Your task to perform on an android device: open app "LiveIn - Share Your Moment" (install if not already installed) and go to login screen Image 0: 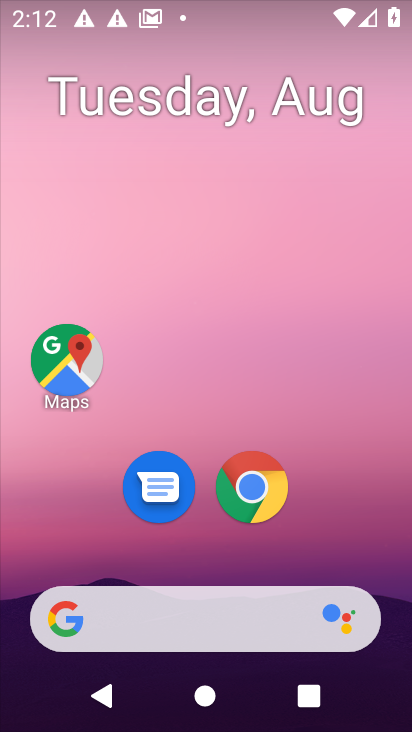
Step 0: drag from (183, 624) to (279, 6)
Your task to perform on an android device: open app "LiveIn - Share Your Moment" (install if not already installed) and go to login screen Image 1: 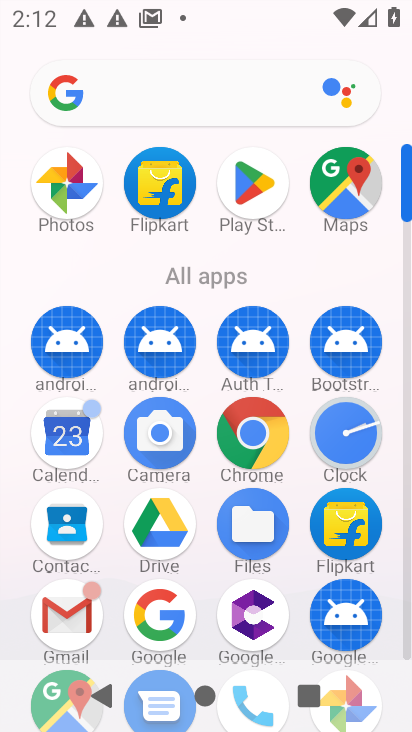
Step 1: click (250, 190)
Your task to perform on an android device: open app "LiveIn - Share Your Moment" (install if not already installed) and go to login screen Image 2: 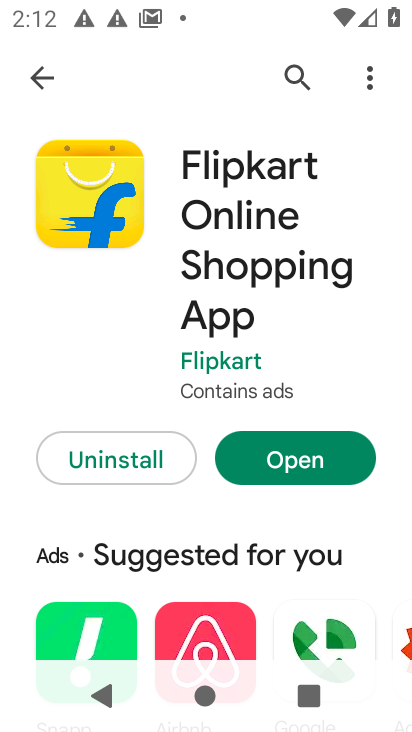
Step 2: press back button
Your task to perform on an android device: open app "LiveIn - Share Your Moment" (install if not already installed) and go to login screen Image 3: 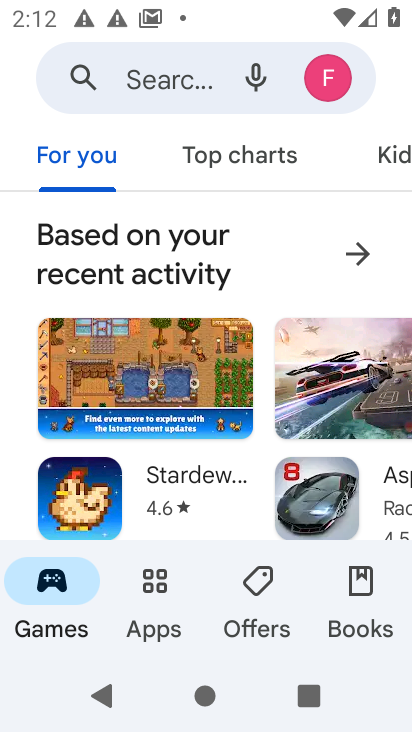
Step 3: click (186, 75)
Your task to perform on an android device: open app "LiveIn - Share Your Moment" (install if not already installed) and go to login screen Image 4: 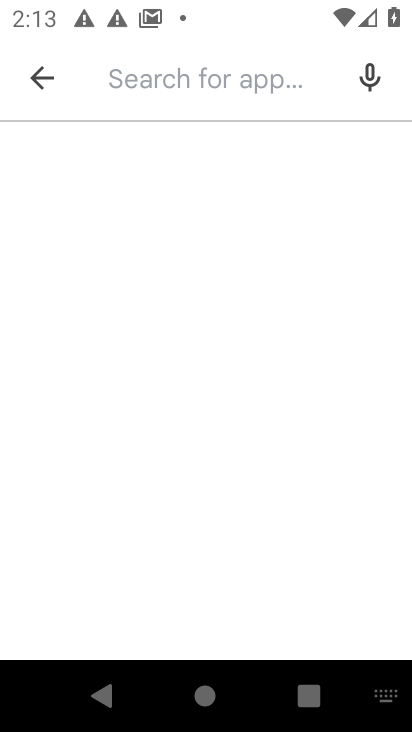
Step 4: type "LiveIn - Share Your Moment"
Your task to perform on an android device: open app "LiveIn - Share Your Moment" (install if not already installed) and go to login screen Image 5: 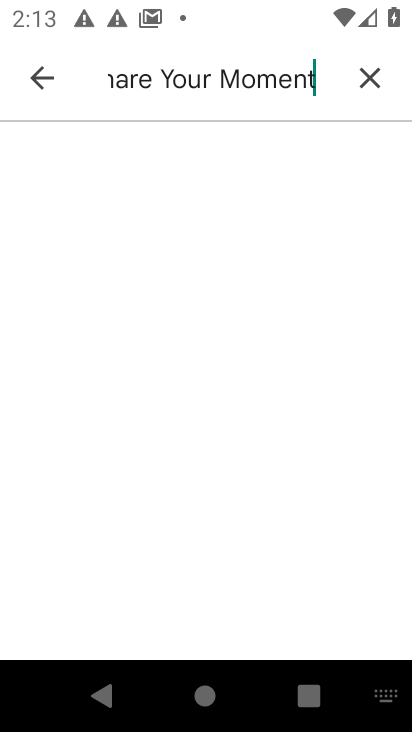
Step 5: type ""
Your task to perform on an android device: open app "LiveIn - Share Your Moment" (install if not already installed) and go to login screen Image 6: 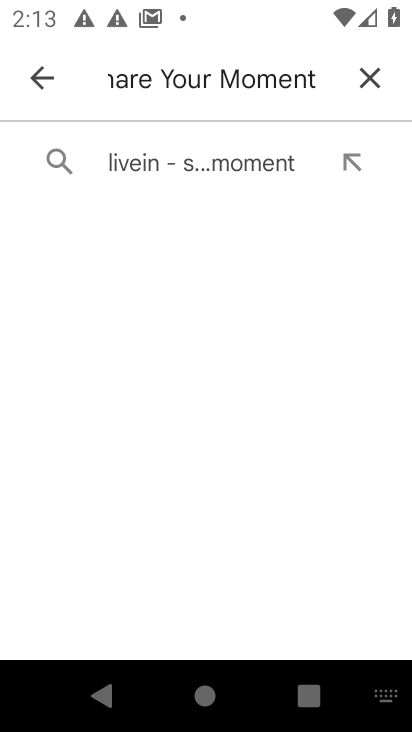
Step 6: click (198, 167)
Your task to perform on an android device: open app "LiveIn - Share Your Moment" (install if not already installed) and go to login screen Image 7: 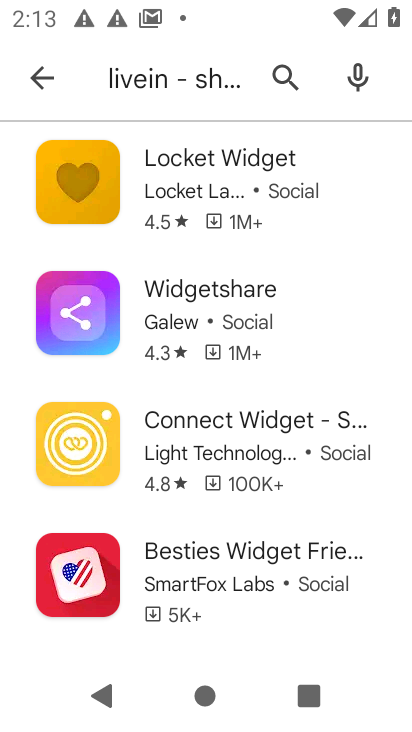
Step 7: task complete